Your task to perform on an android device: open app "Google Duo" Image 0: 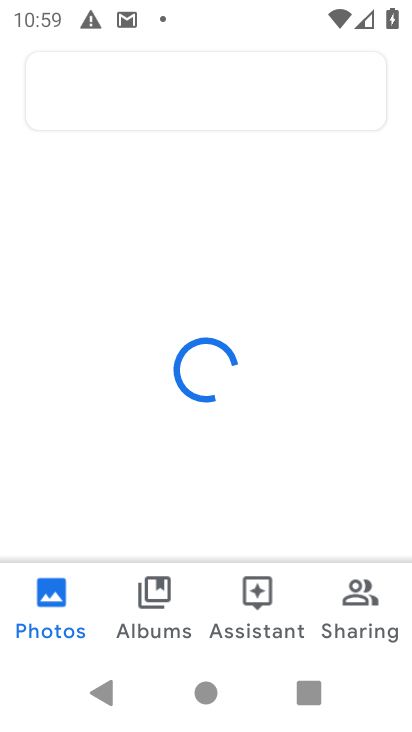
Step 0: press home button
Your task to perform on an android device: open app "Google Duo" Image 1: 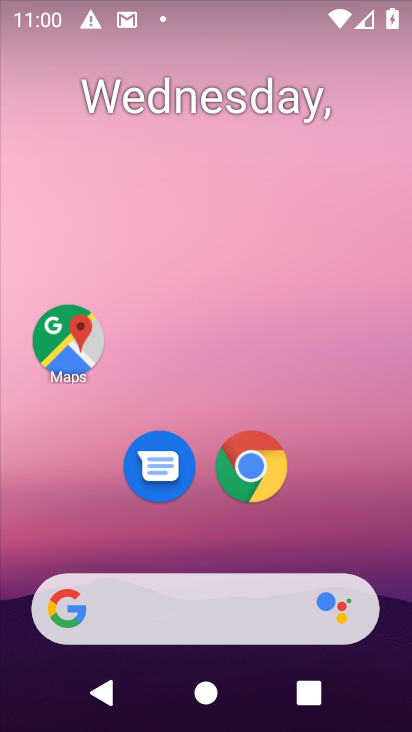
Step 1: task complete